Your task to perform on an android device: toggle javascript in the chrome app Image 0: 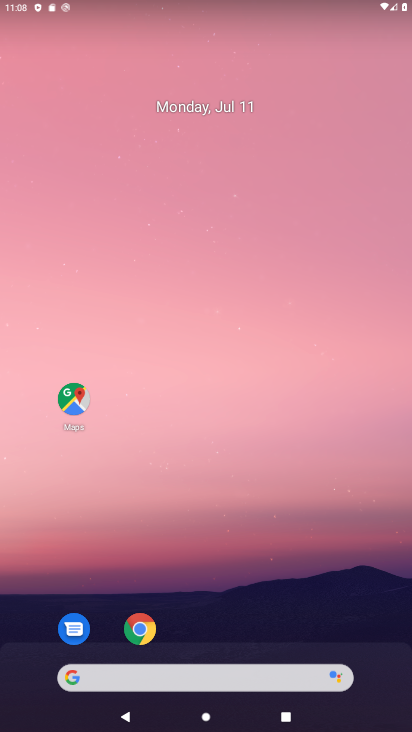
Step 0: press home button
Your task to perform on an android device: toggle javascript in the chrome app Image 1: 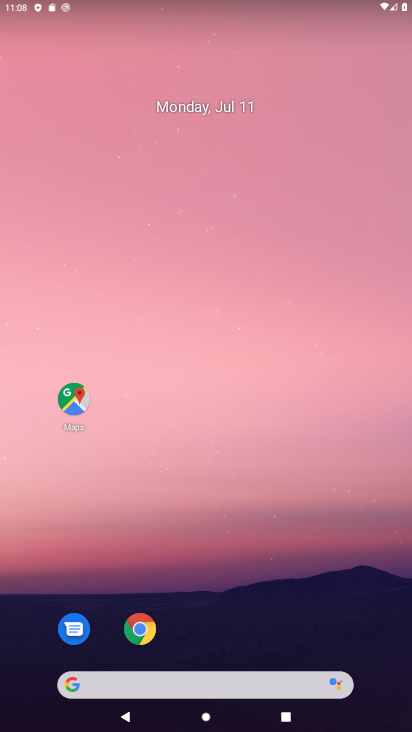
Step 1: press home button
Your task to perform on an android device: toggle javascript in the chrome app Image 2: 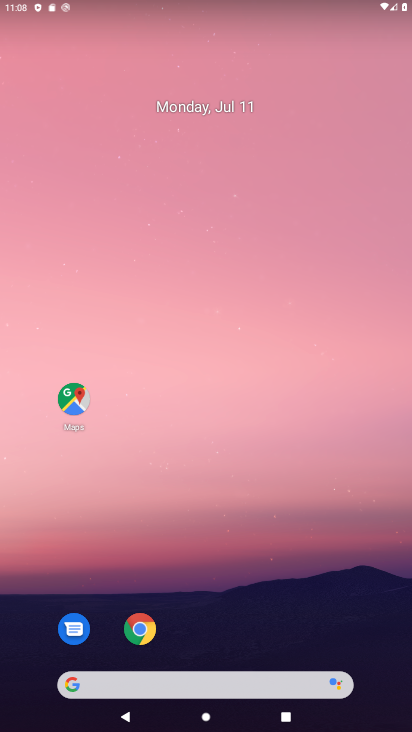
Step 2: click (137, 628)
Your task to perform on an android device: toggle javascript in the chrome app Image 3: 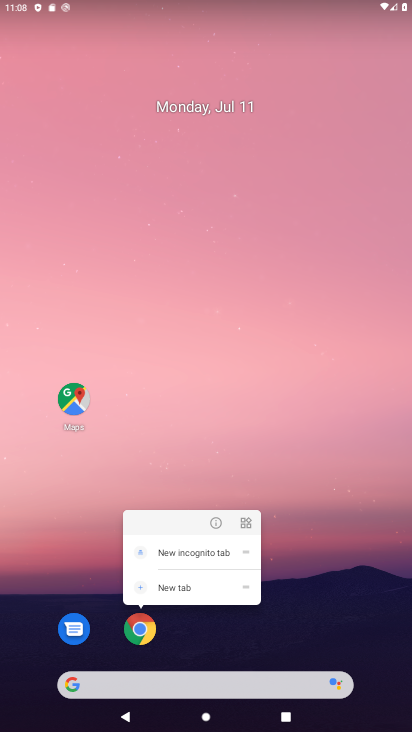
Step 3: click (137, 628)
Your task to perform on an android device: toggle javascript in the chrome app Image 4: 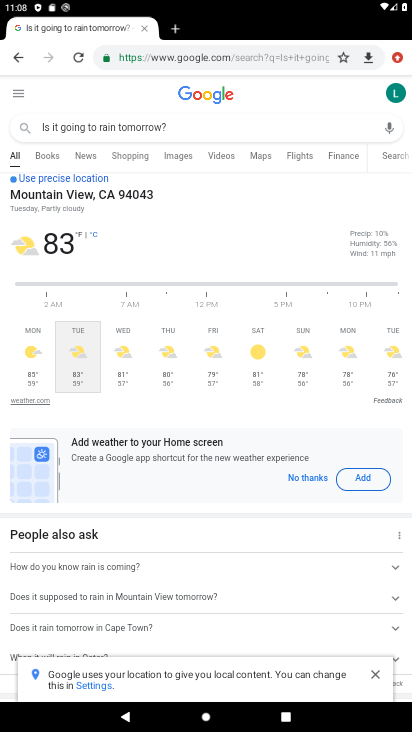
Step 4: drag from (399, 58) to (272, 392)
Your task to perform on an android device: toggle javascript in the chrome app Image 5: 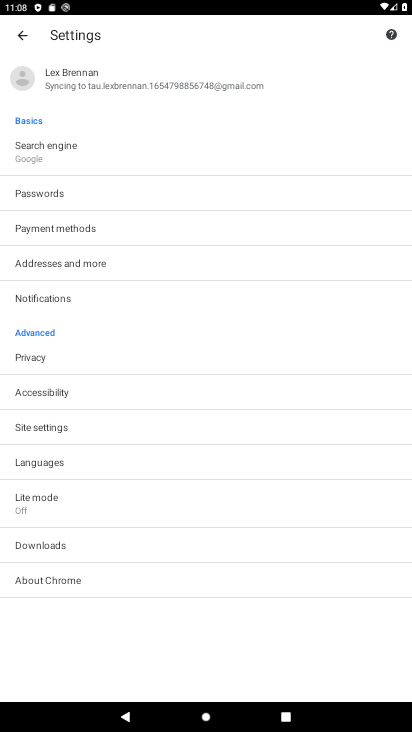
Step 5: click (62, 426)
Your task to perform on an android device: toggle javascript in the chrome app Image 6: 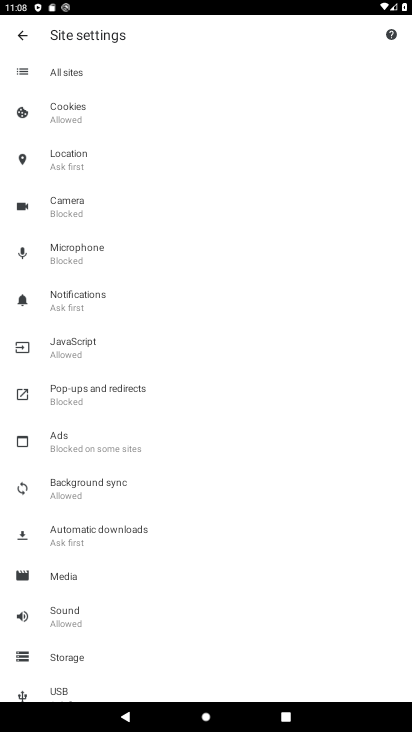
Step 6: click (86, 350)
Your task to perform on an android device: toggle javascript in the chrome app Image 7: 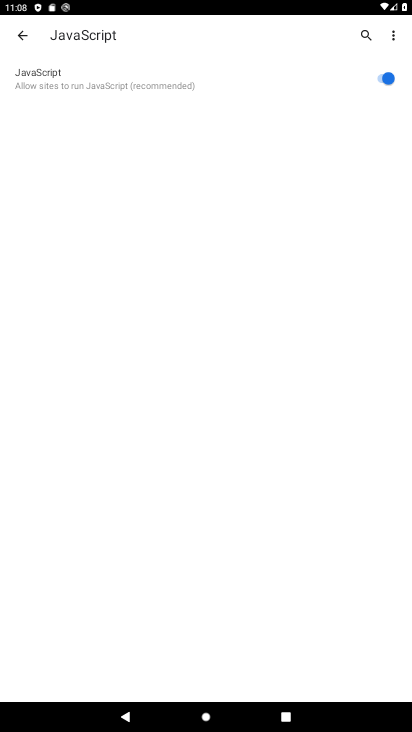
Step 7: click (240, 81)
Your task to perform on an android device: toggle javascript in the chrome app Image 8: 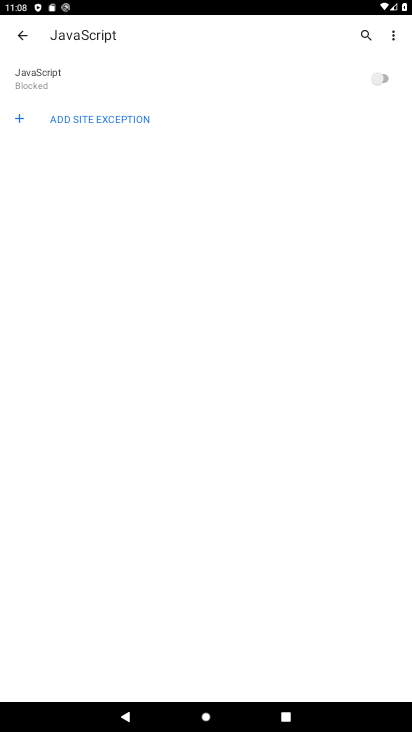
Step 8: task complete